Your task to perform on an android device: toggle improve location accuracy Image 0: 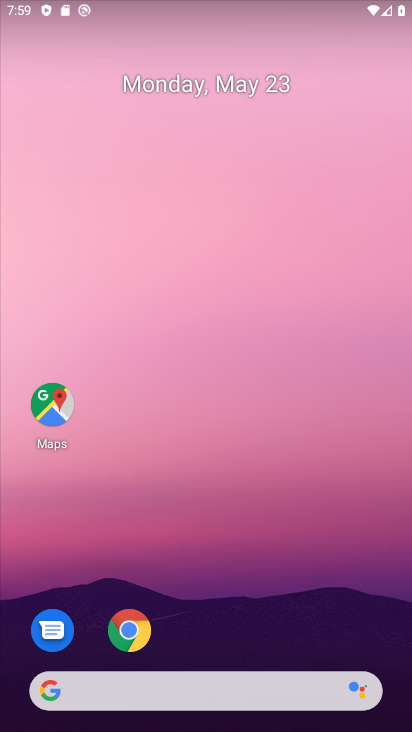
Step 0: drag from (200, 618) to (246, 120)
Your task to perform on an android device: toggle improve location accuracy Image 1: 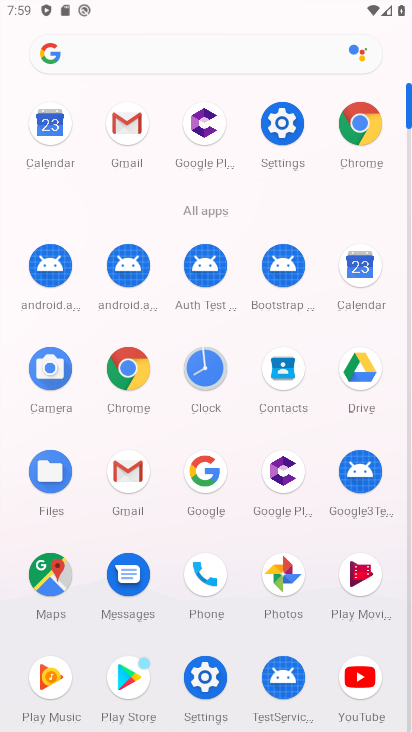
Step 1: click (275, 133)
Your task to perform on an android device: toggle improve location accuracy Image 2: 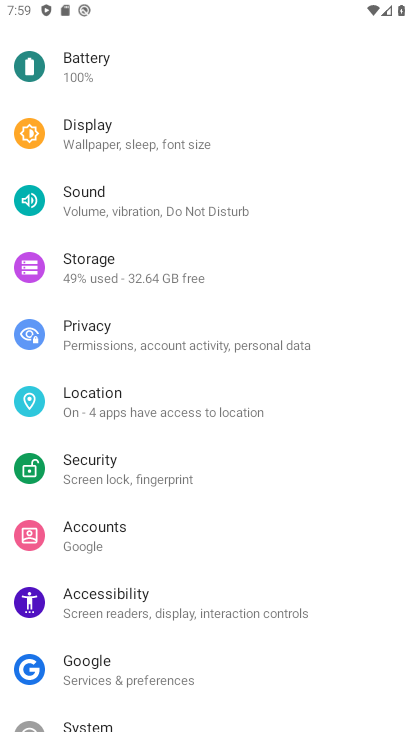
Step 2: click (89, 409)
Your task to perform on an android device: toggle improve location accuracy Image 3: 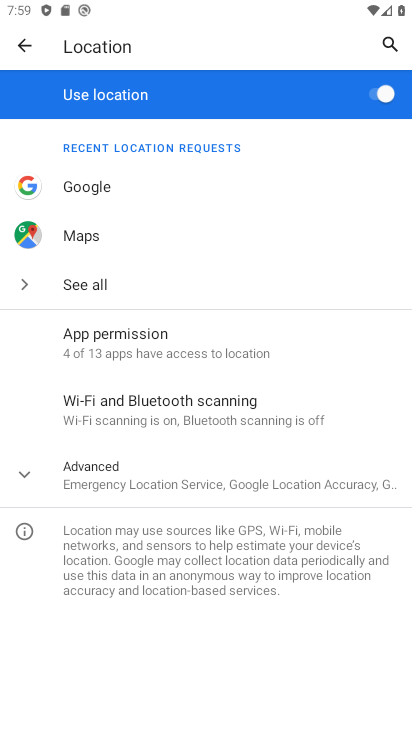
Step 3: click (70, 482)
Your task to perform on an android device: toggle improve location accuracy Image 4: 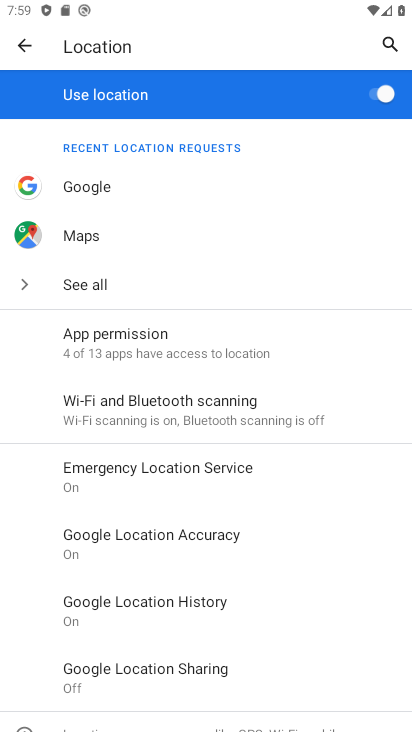
Step 4: click (151, 537)
Your task to perform on an android device: toggle improve location accuracy Image 5: 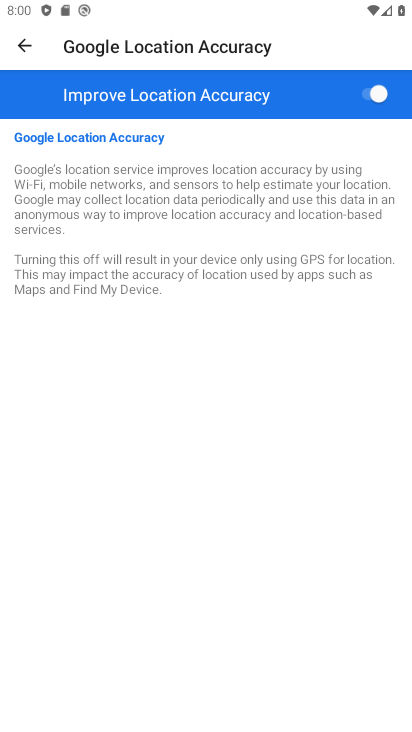
Step 5: click (367, 93)
Your task to perform on an android device: toggle improve location accuracy Image 6: 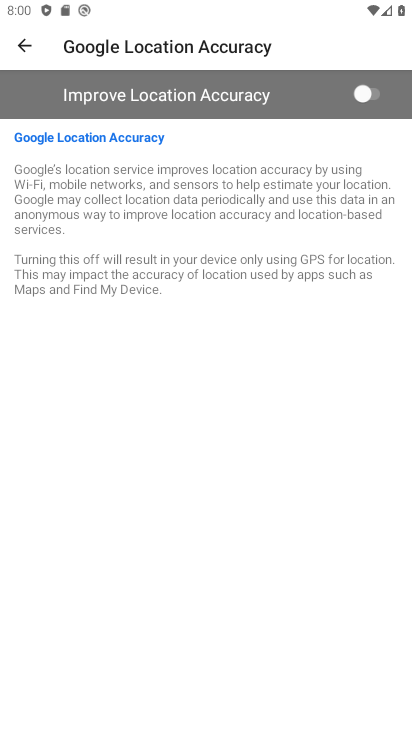
Step 6: task complete